Your task to perform on an android device: Open wifi settings Image 0: 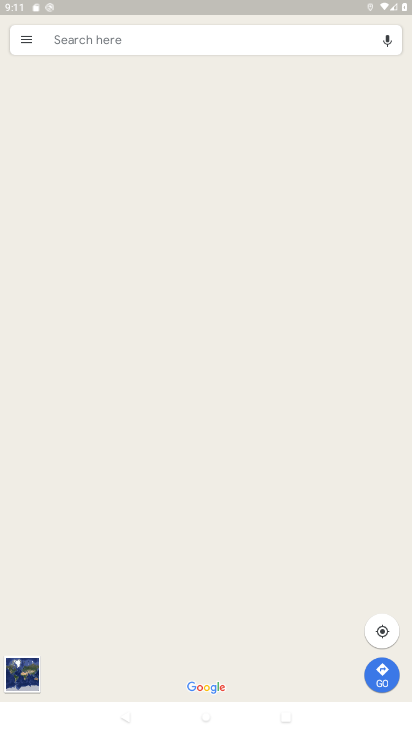
Step 0: press home button
Your task to perform on an android device: Open wifi settings Image 1: 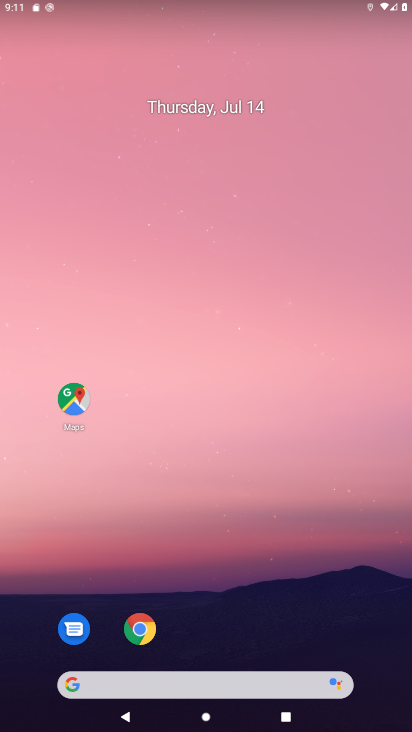
Step 1: drag from (92, 8) to (112, 382)
Your task to perform on an android device: Open wifi settings Image 2: 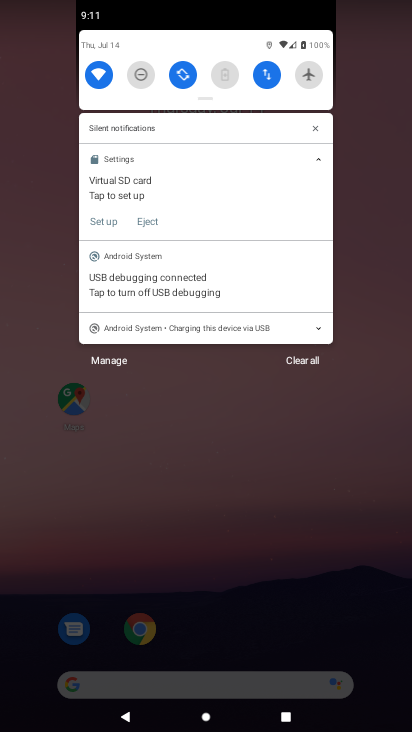
Step 2: click (96, 66)
Your task to perform on an android device: Open wifi settings Image 3: 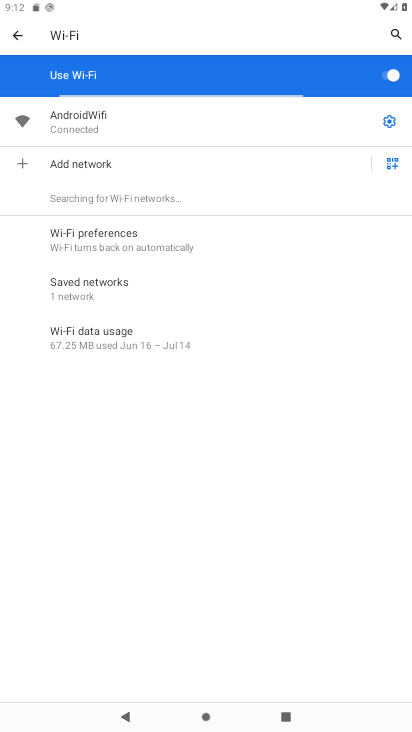
Step 3: task complete